Your task to perform on an android device: turn smart compose on in the gmail app Image 0: 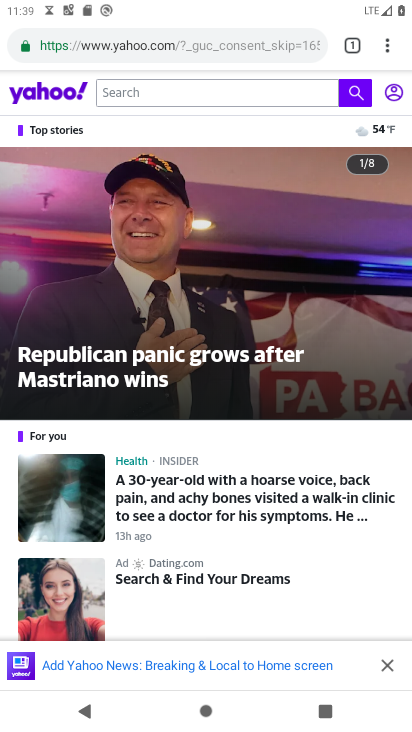
Step 0: press home button
Your task to perform on an android device: turn smart compose on in the gmail app Image 1: 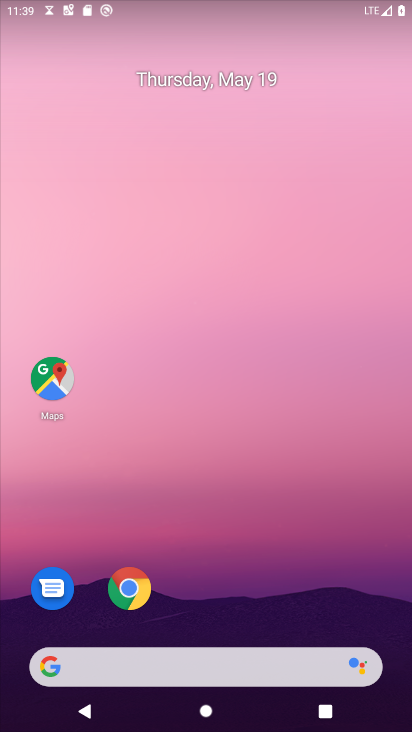
Step 1: drag from (296, 542) to (203, 0)
Your task to perform on an android device: turn smart compose on in the gmail app Image 2: 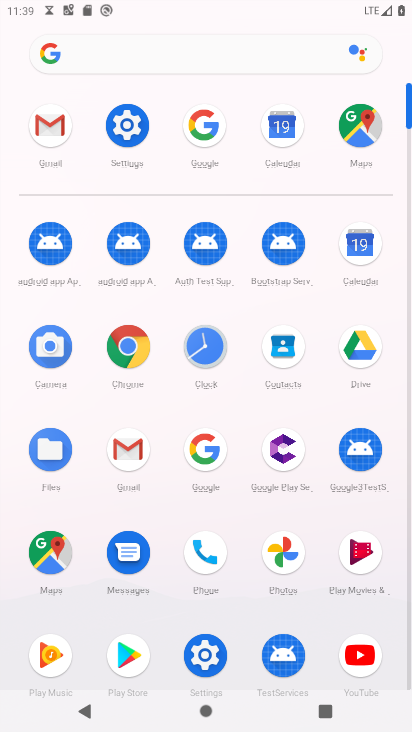
Step 2: click (129, 450)
Your task to perform on an android device: turn smart compose on in the gmail app Image 3: 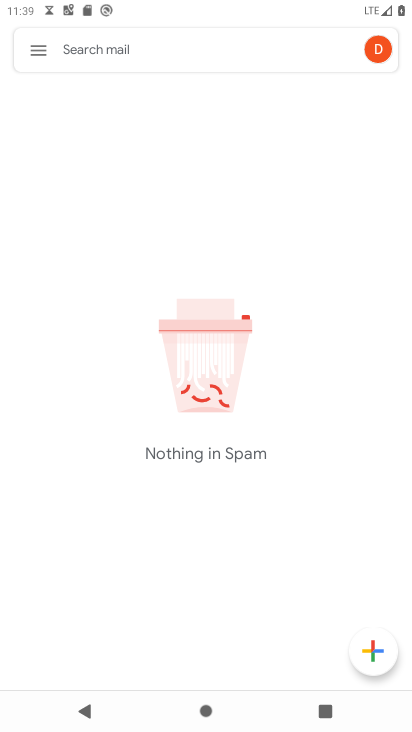
Step 3: click (35, 49)
Your task to perform on an android device: turn smart compose on in the gmail app Image 4: 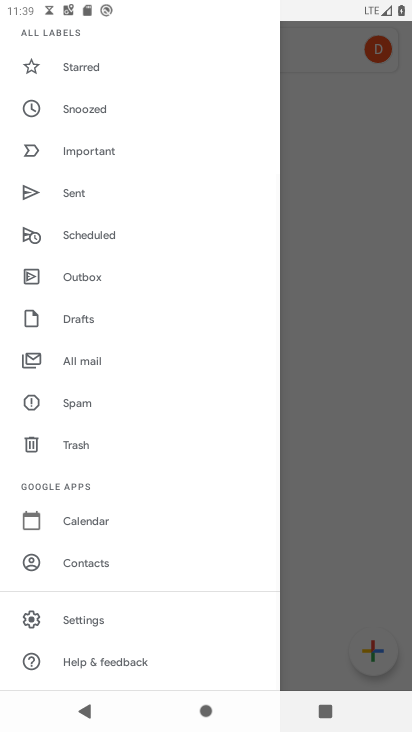
Step 4: click (128, 619)
Your task to perform on an android device: turn smart compose on in the gmail app Image 5: 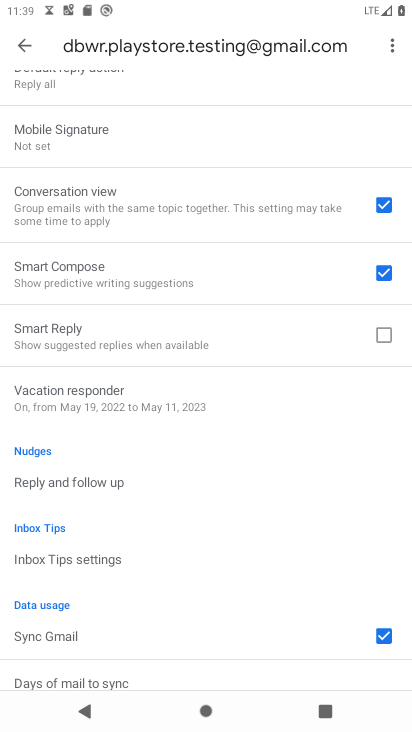
Step 5: task complete